Your task to perform on an android device: Show me the alarms in the clock app Image 0: 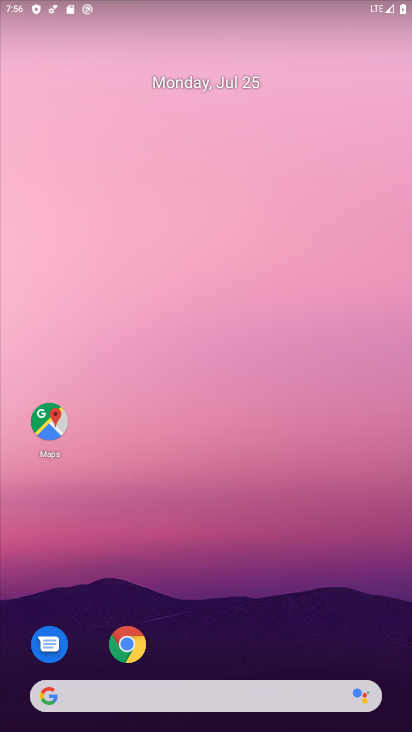
Step 0: drag from (173, 549) to (204, 73)
Your task to perform on an android device: Show me the alarms in the clock app Image 1: 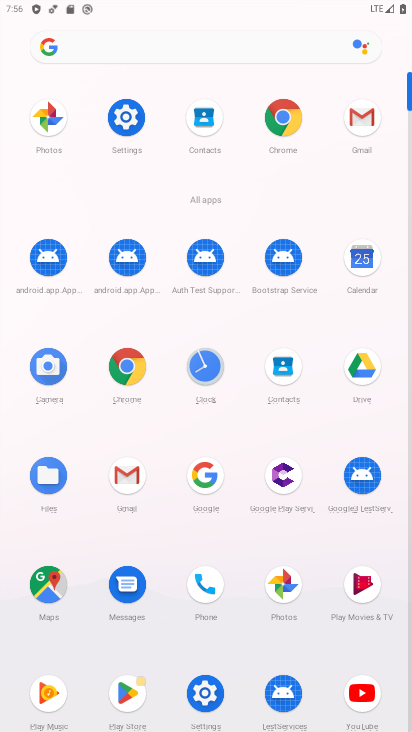
Step 1: click (198, 375)
Your task to perform on an android device: Show me the alarms in the clock app Image 2: 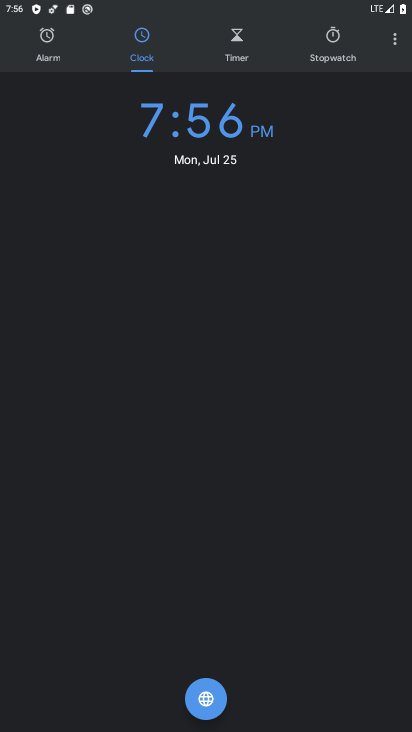
Step 2: click (47, 39)
Your task to perform on an android device: Show me the alarms in the clock app Image 3: 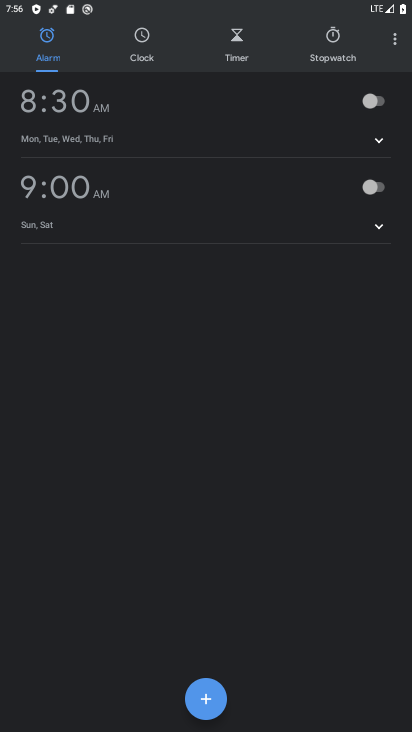
Step 3: task complete